Your task to perform on an android device: install app "Speedtest by Ookla" Image 0: 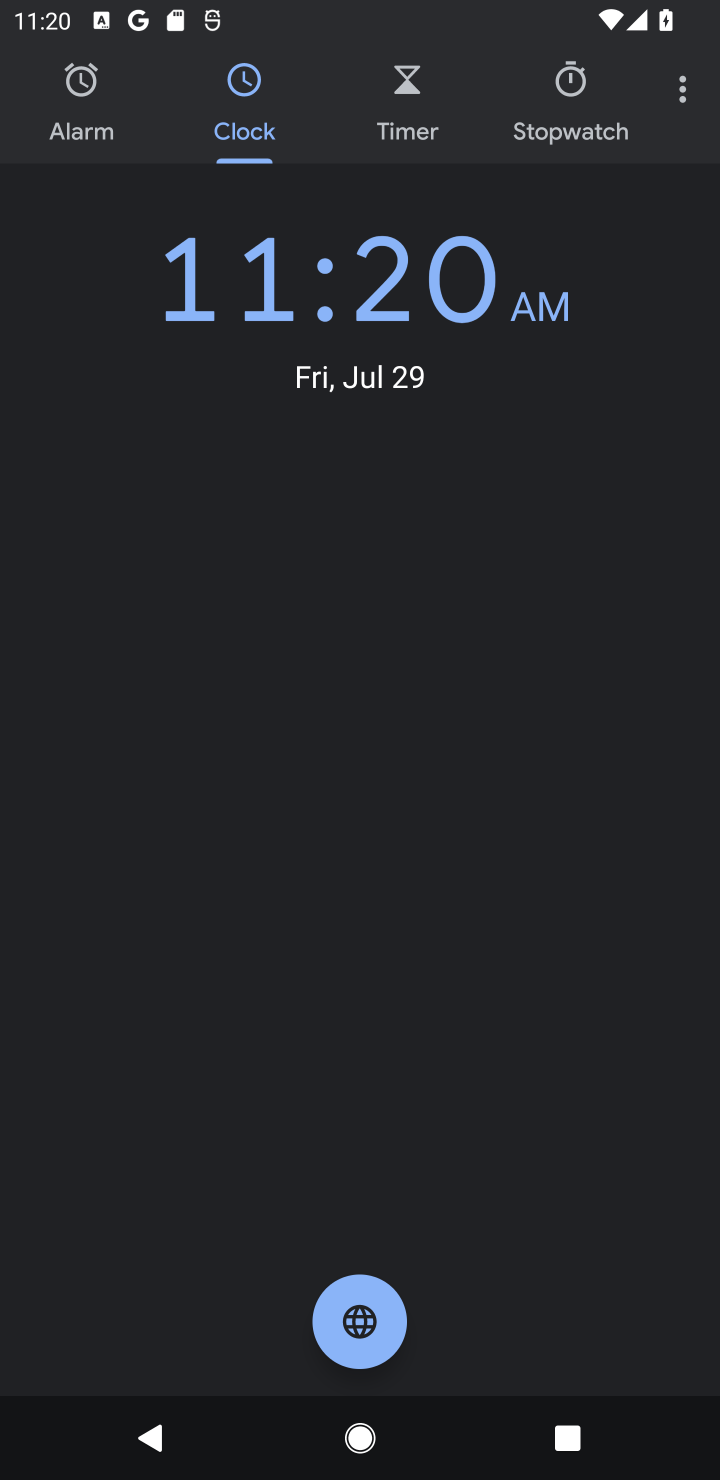
Step 0: press back button
Your task to perform on an android device: install app "Speedtest by Ookla" Image 1: 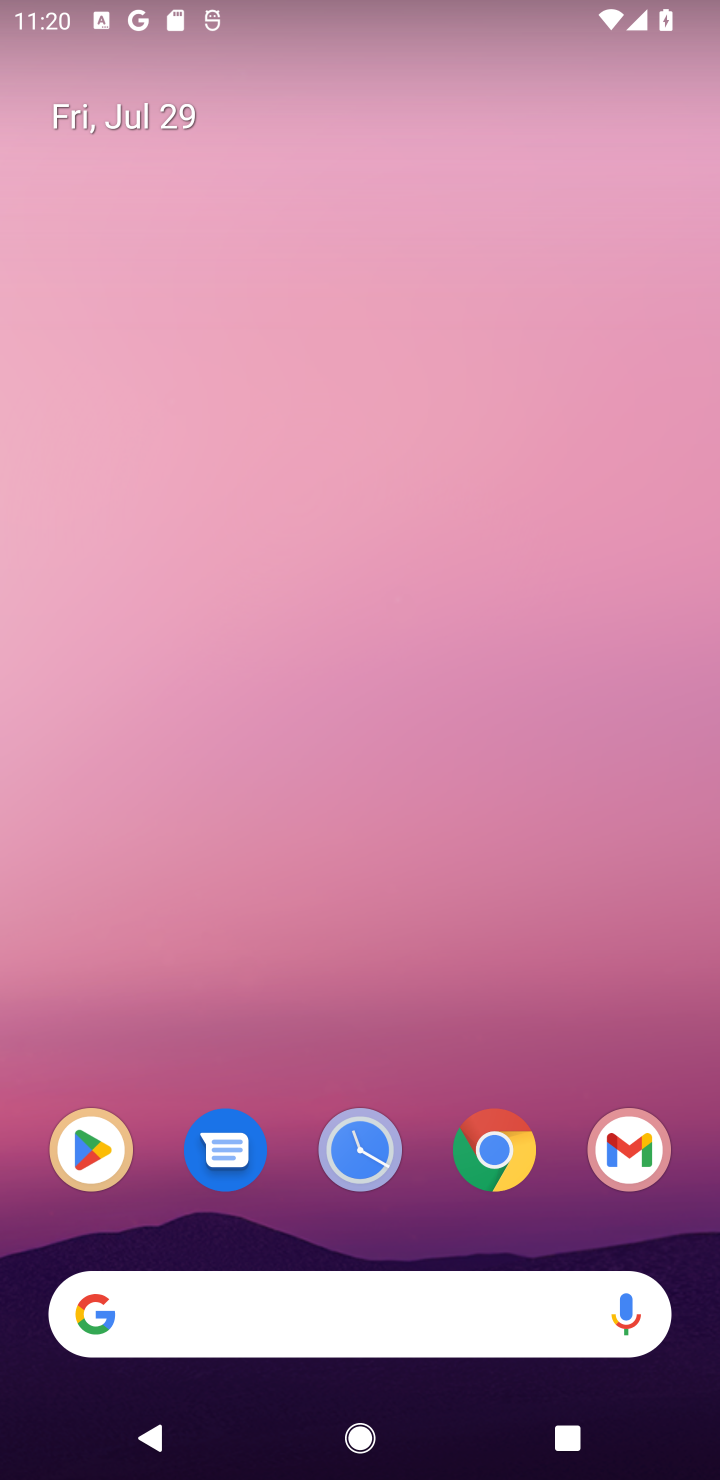
Step 1: click (119, 1120)
Your task to perform on an android device: install app "Speedtest by Ookla" Image 2: 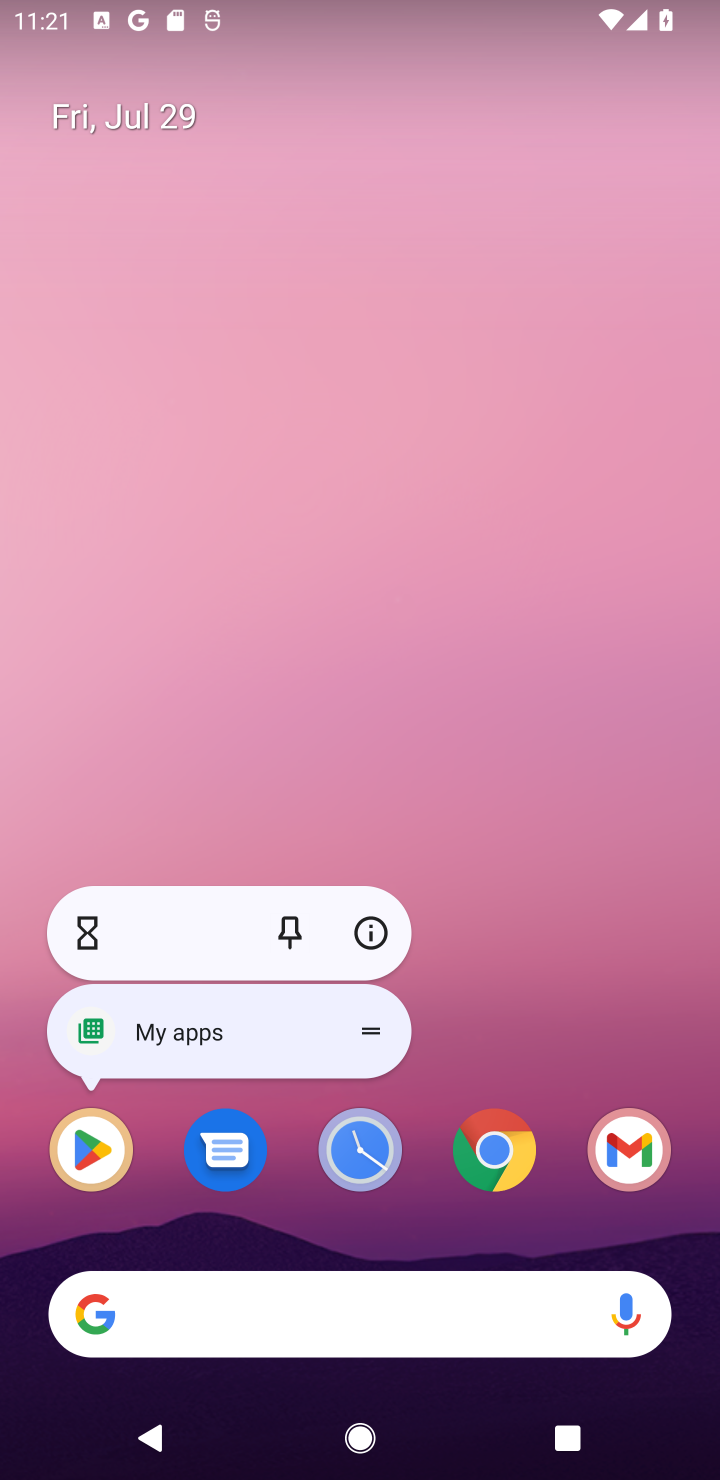
Step 2: click (85, 1145)
Your task to perform on an android device: install app "Speedtest by Ookla" Image 3: 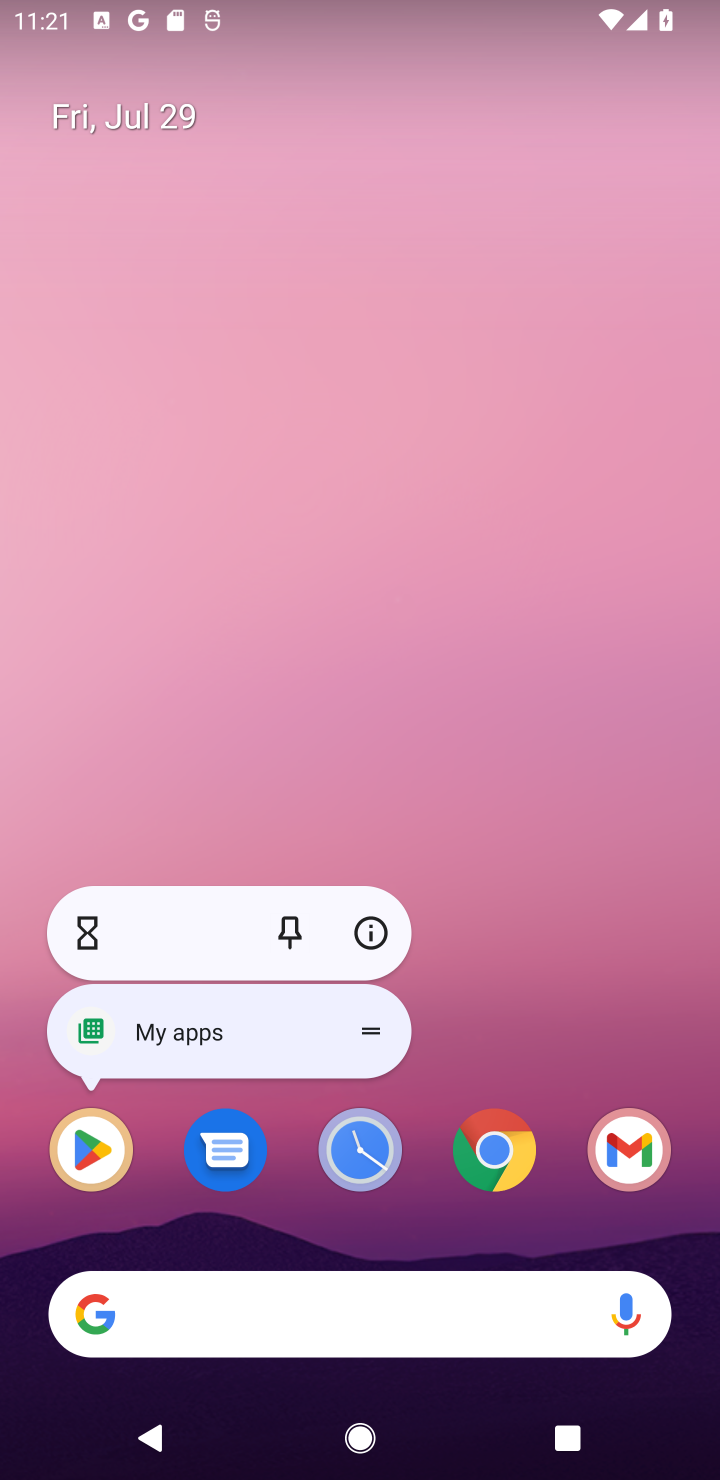
Step 3: click (93, 1153)
Your task to perform on an android device: install app "Speedtest by Ookla" Image 4: 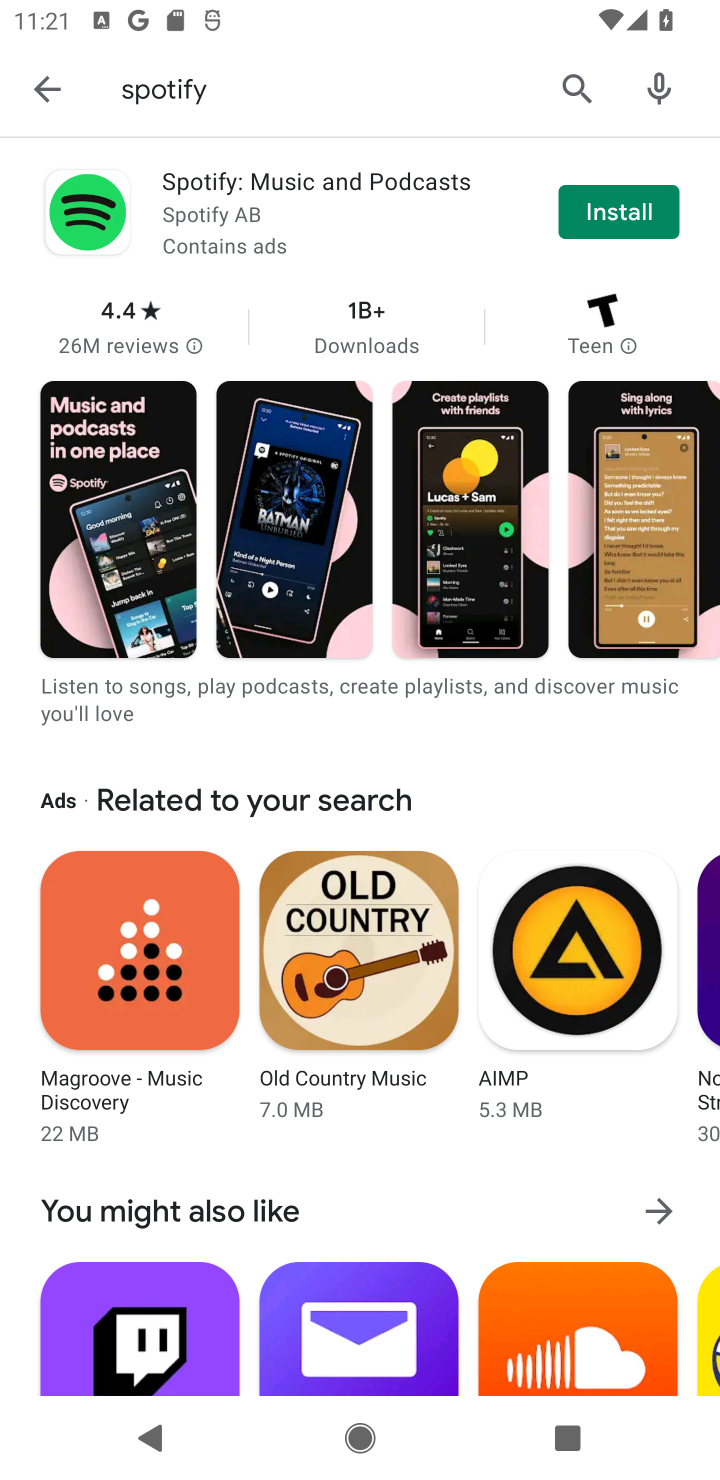
Step 4: click (569, 83)
Your task to perform on an android device: install app "Speedtest by Ookla" Image 5: 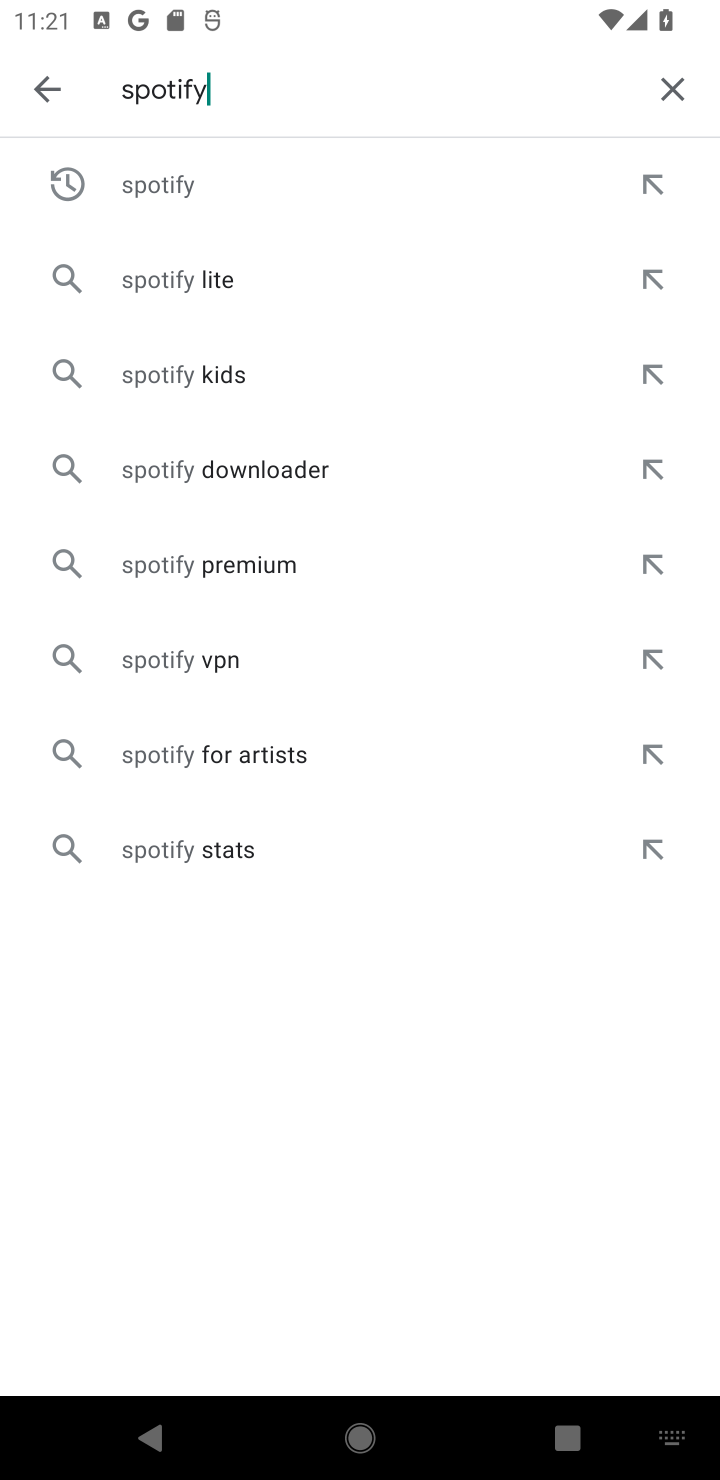
Step 5: click (677, 78)
Your task to perform on an android device: install app "Speedtest by Ookla" Image 6: 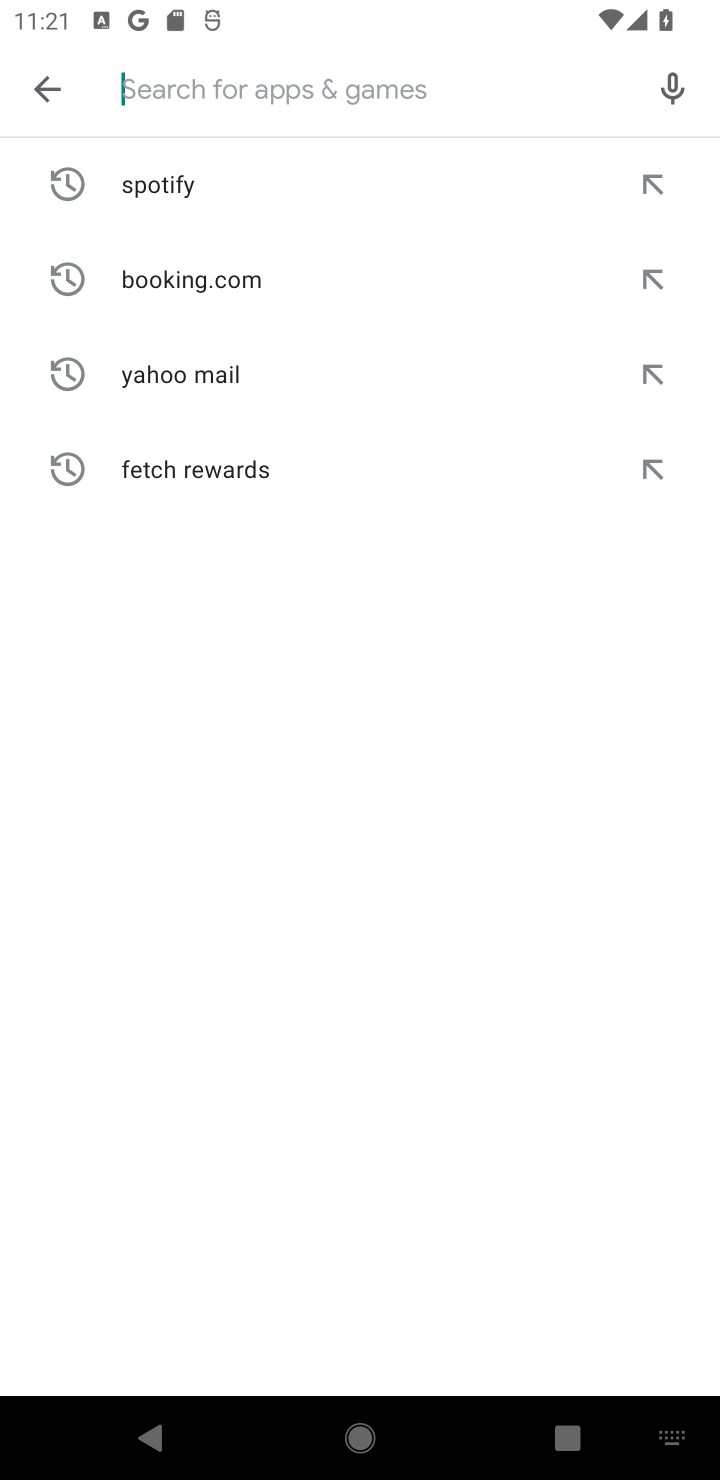
Step 6: click (184, 99)
Your task to perform on an android device: install app "Speedtest by Ookla" Image 7: 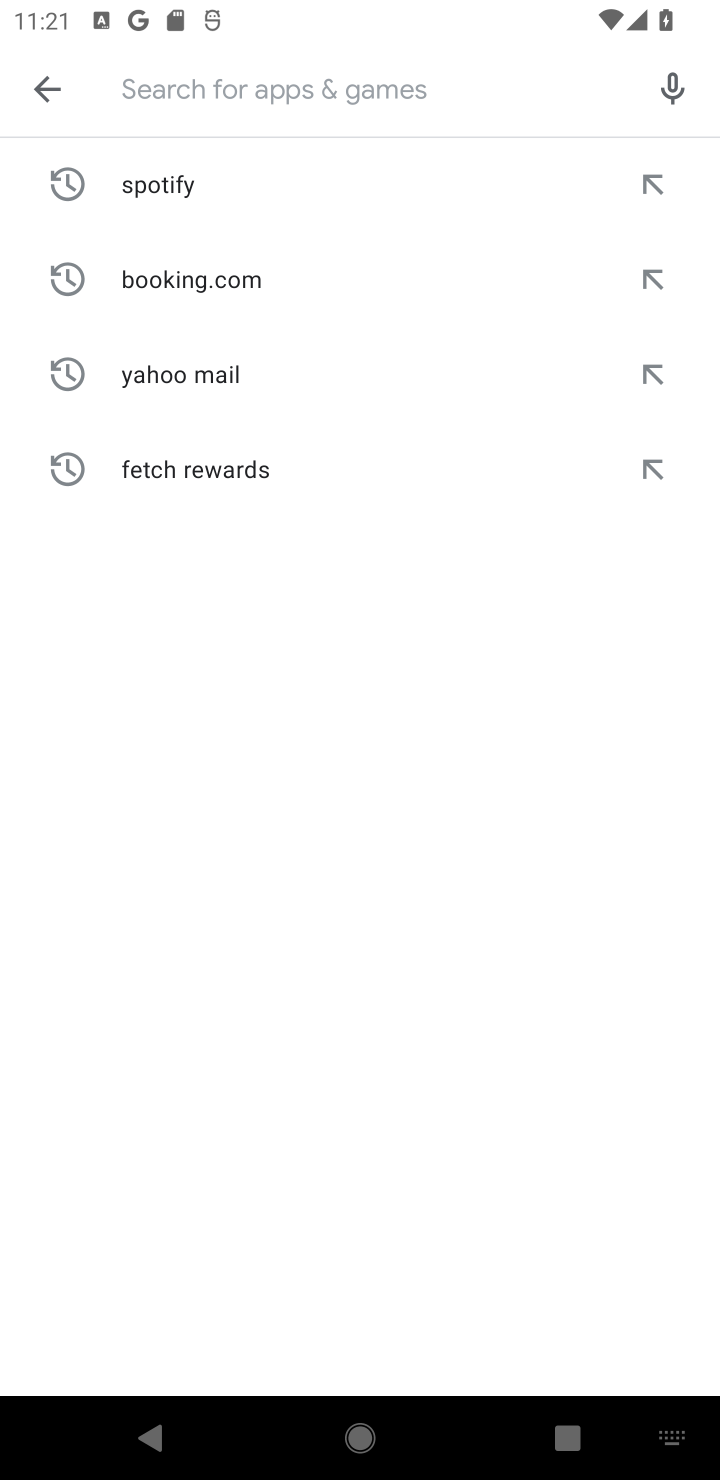
Step 7: type "speed test"
Your task to perform on an android device: install app "Speedtest by Ookla" Image 8: 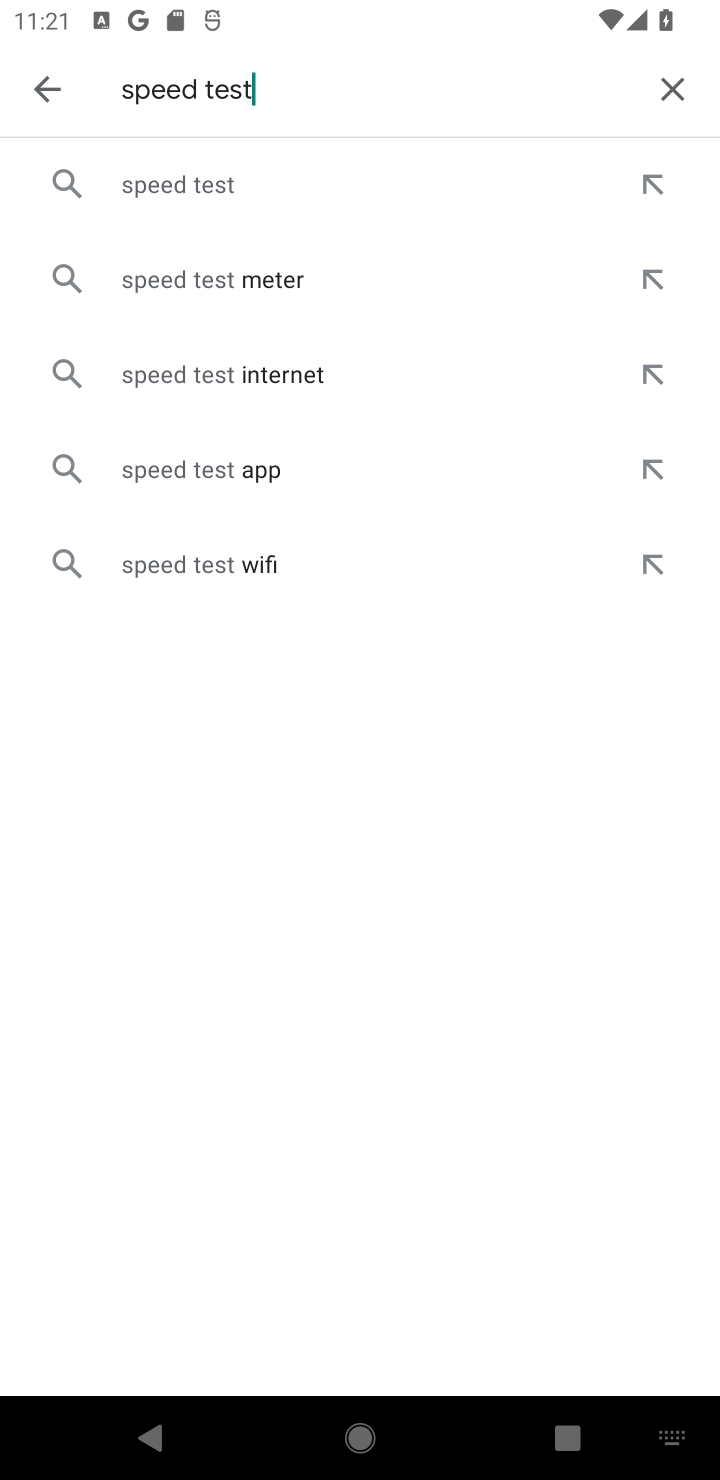
Step 8: click (220, 160)
Your task to perform on an android device: install app "Speedtest by Ookla" Image 9: 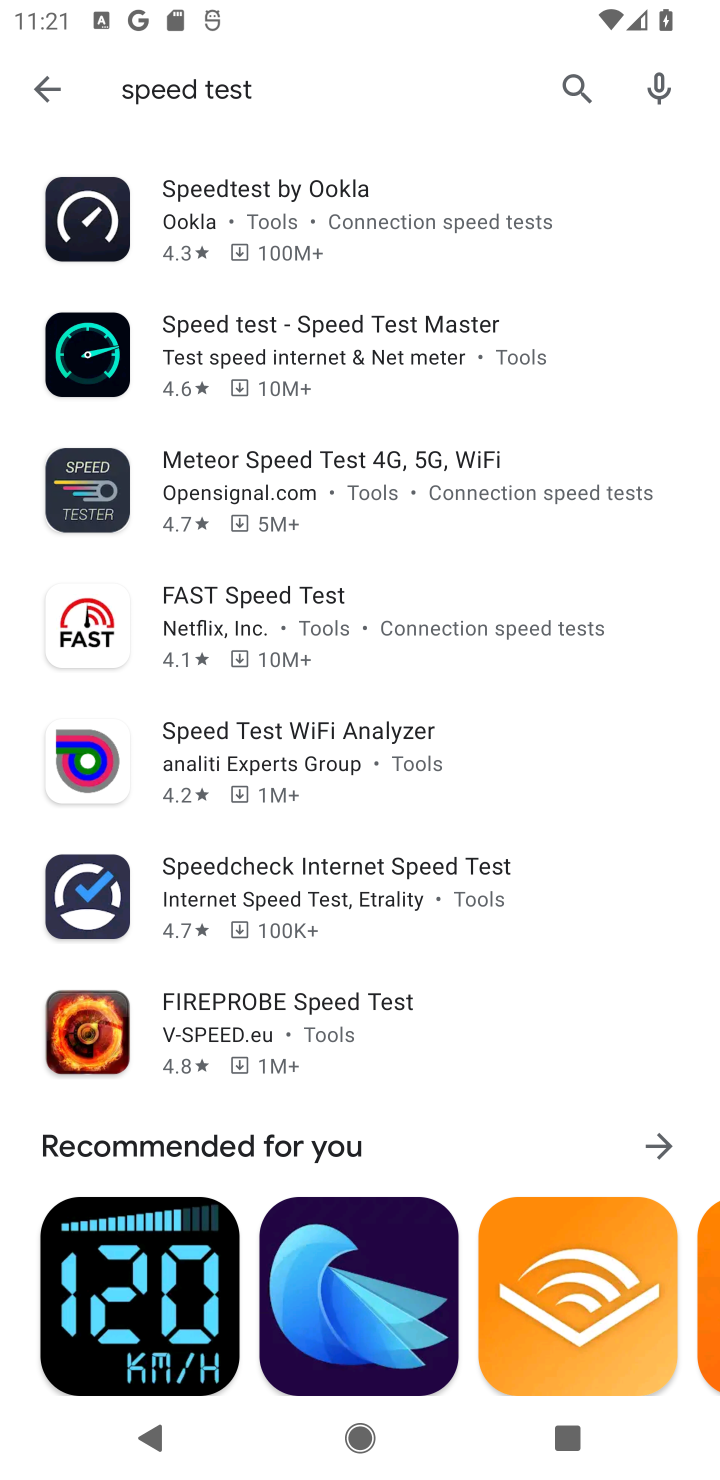
Step 9: click (312, 208)
Your task to perform on an android device: install app "Speedtest by Ookla" Image 10: 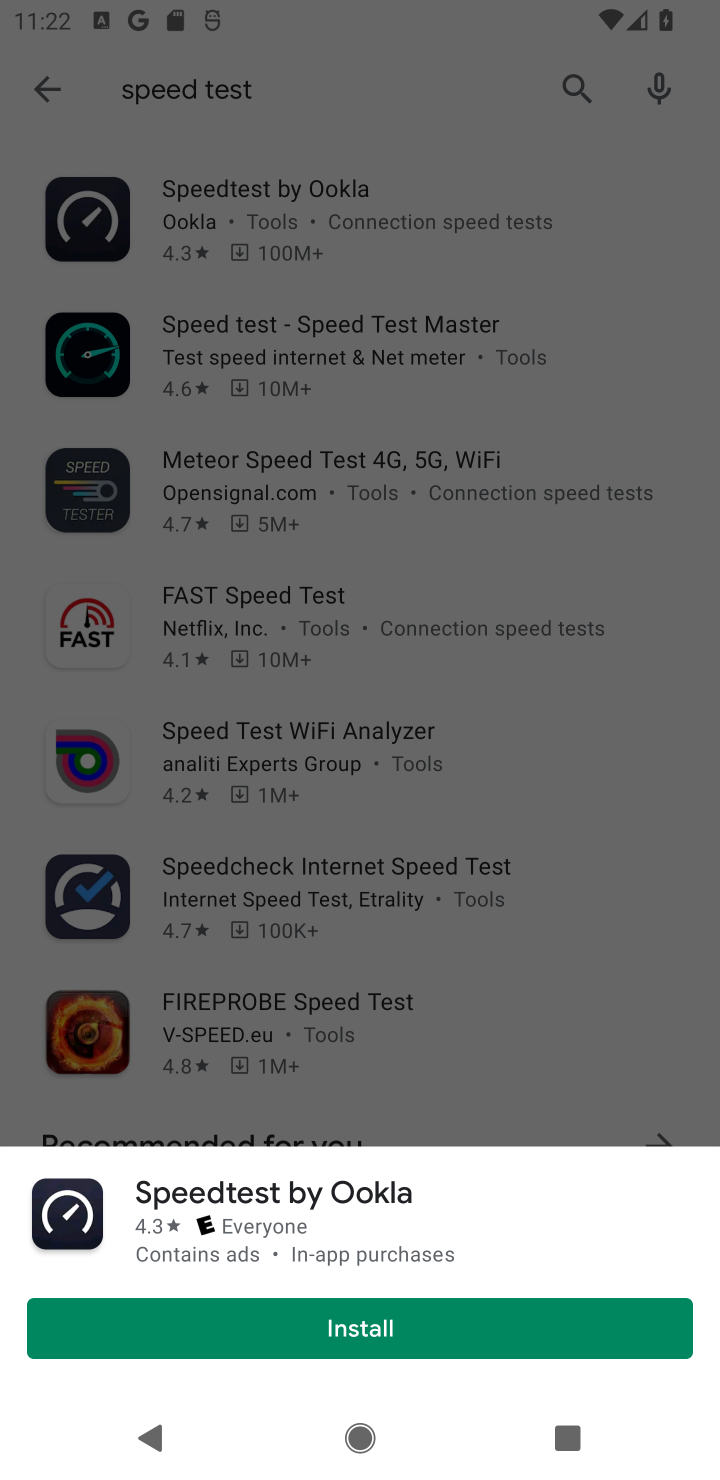
Step 10: click (349, 1316)
Your task to perform on an android device: install app "Speedtest by Ookla" Image 11: 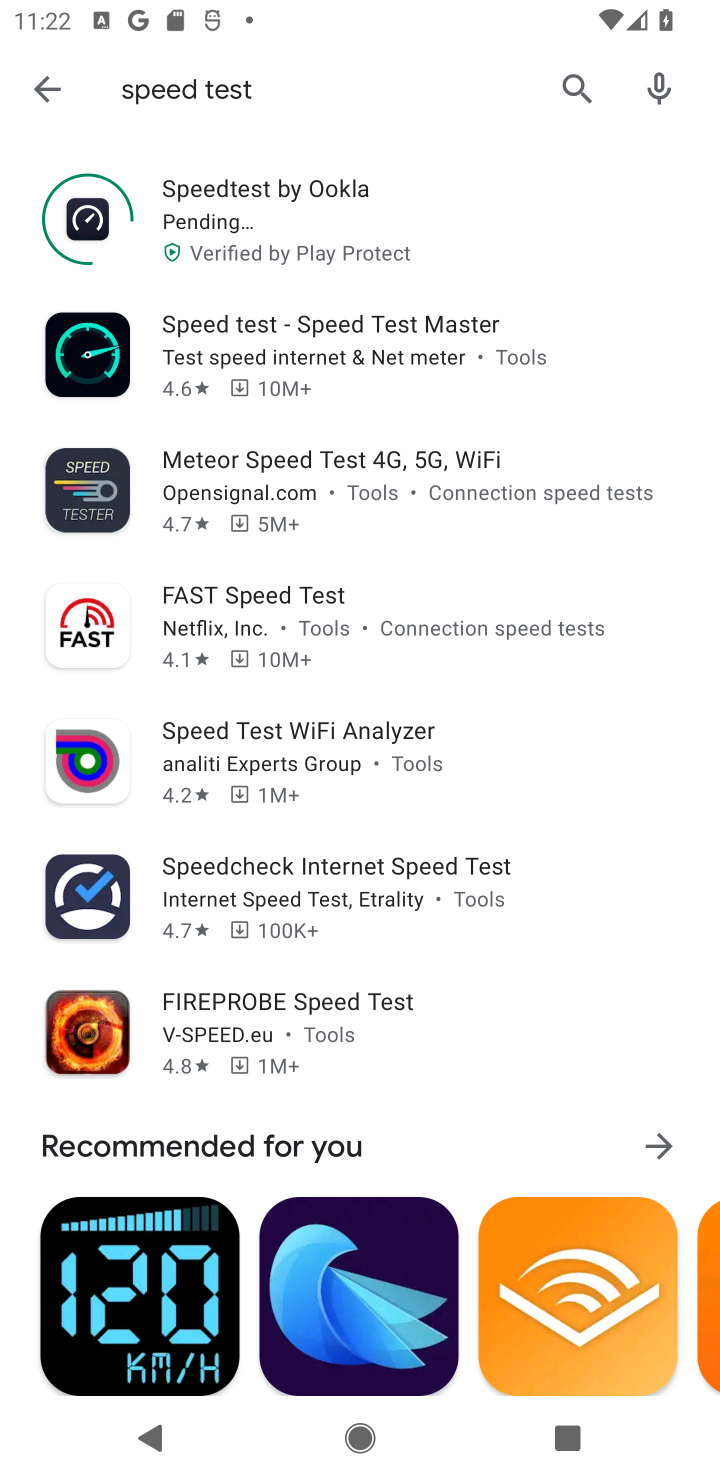
Step 11: click (315, 214)
Your task to perform on an android device: install app "Speedtest by Ookla" Image 12: 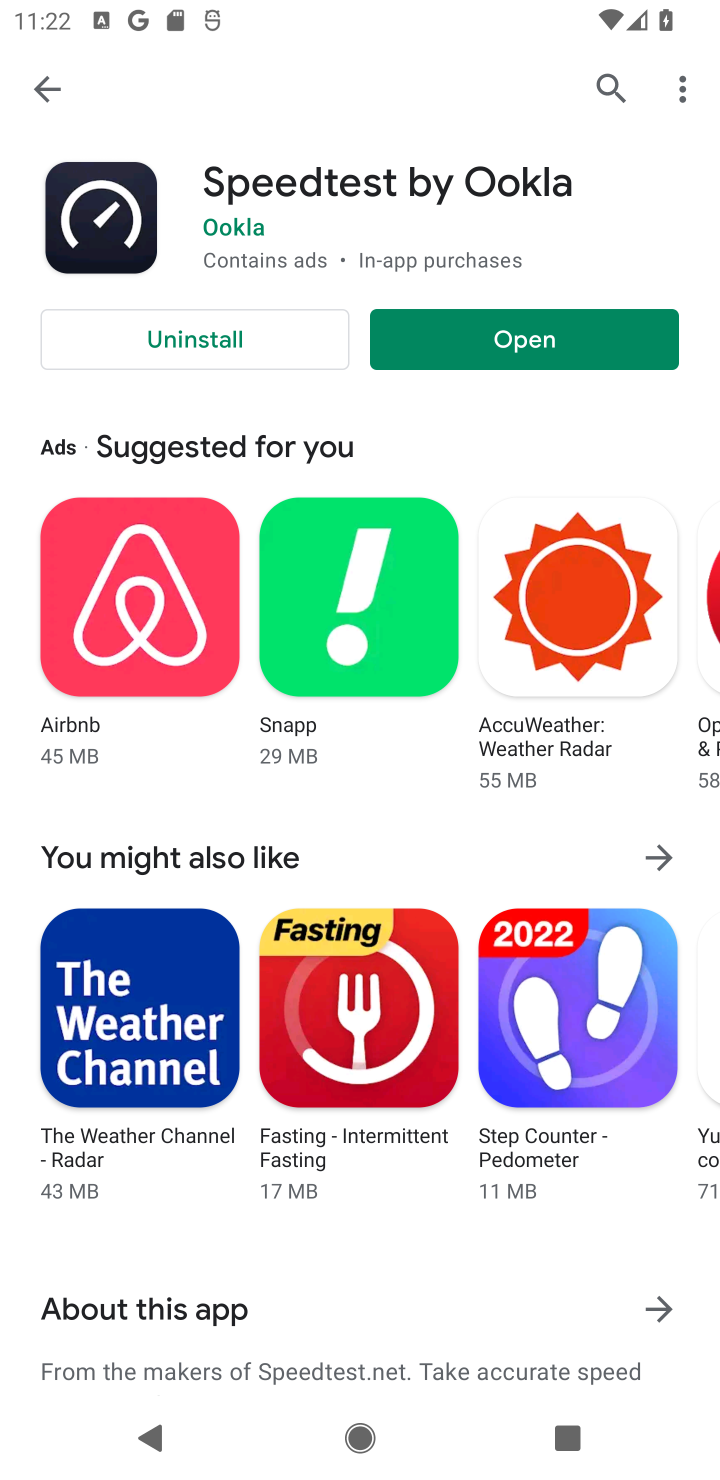
Step 12: task complete